Your task to perform on an android device: Open sound settings Image 0: 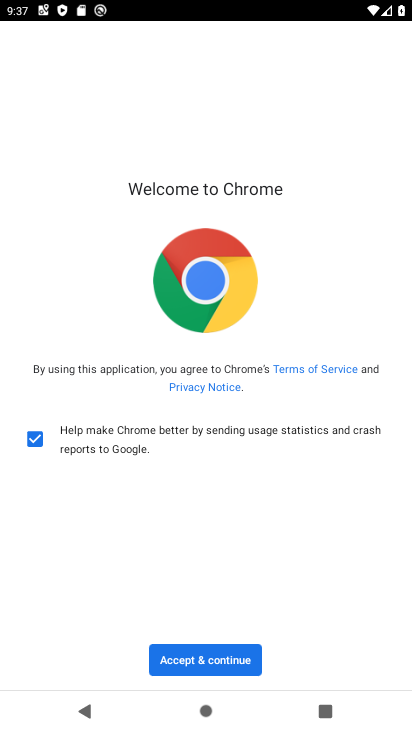
Step 0: press home button
Your task to perform on an android device: Open sound settings Image 1: 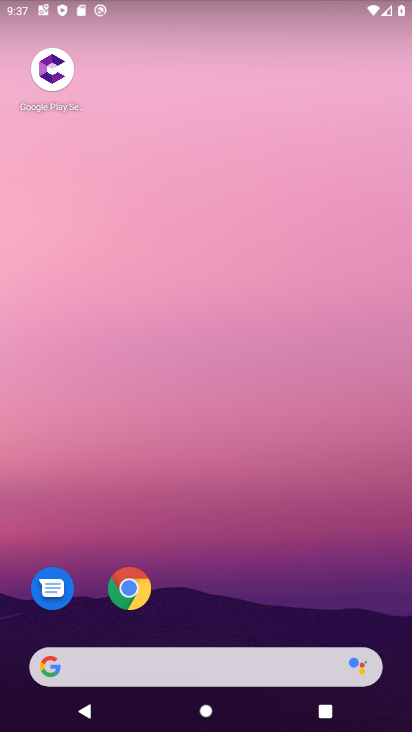
Step 1: drag from (298, 646) to (334, 152)
Your task to perform on an android device: Open sound settings Image 2: 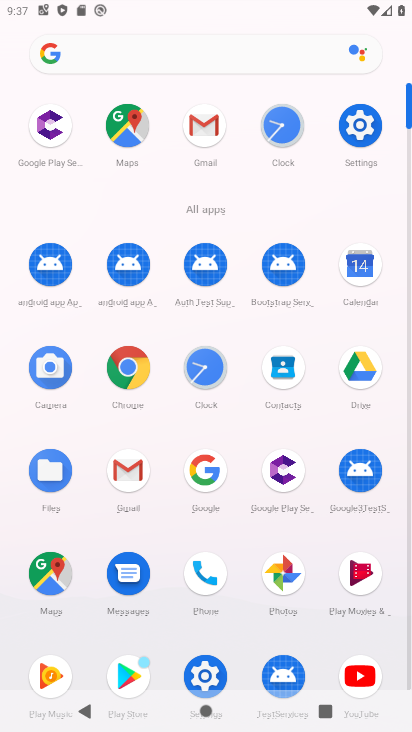
Step 2: click (209, 676)
Your task to perform on an android device: Open sound settings Image 3: 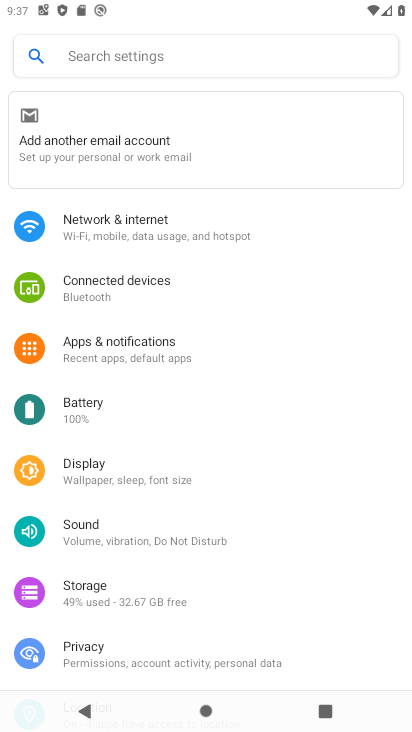
Step 3: click (127, 526)
Your task to perform on an android device: Open sound settings Image 4: 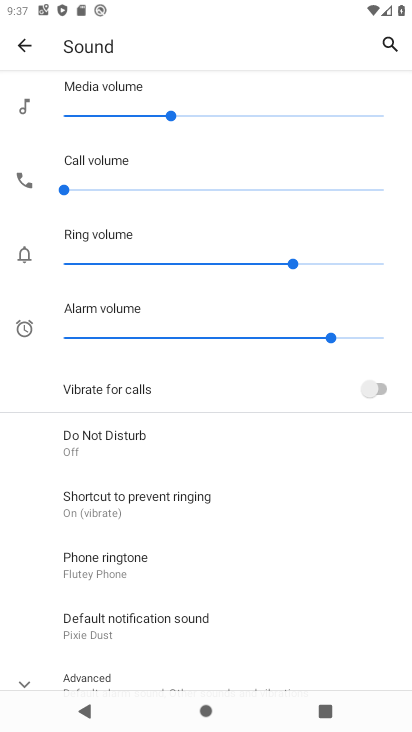
Step 4: task complete